Your task to perform on an android device: Open Yahoo.com Image 0: 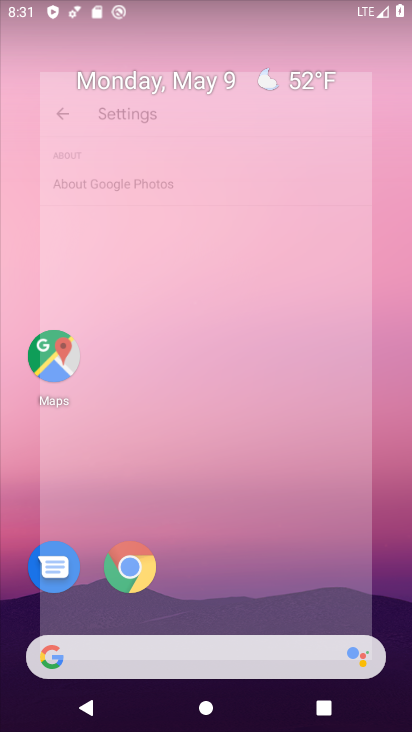
Step 0: drag from (295, 570) to (234, 49)
Your task to perform on an android device: Open Yahoo.com Image 1: 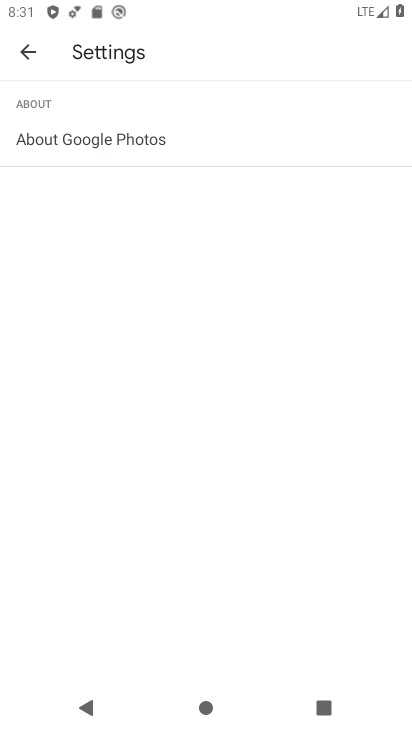
Step 1: press home button
Your task to perform on an android device: Open Yahoo.com Image 2: 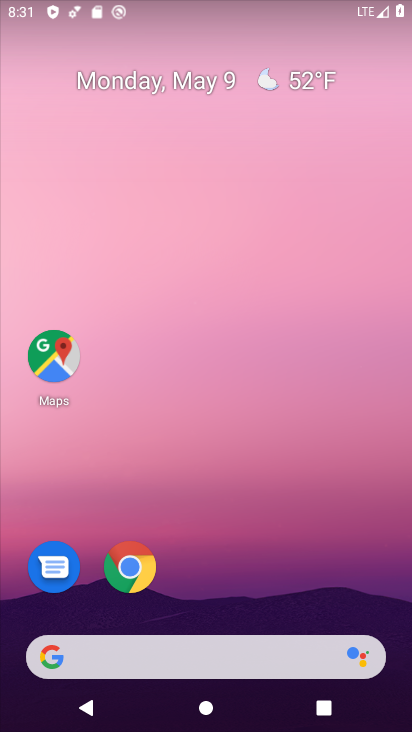
Step 2: drag from (317, 578) to (267, 489)
Your task to perform on an android device: Open Yahoo.com Image 3: 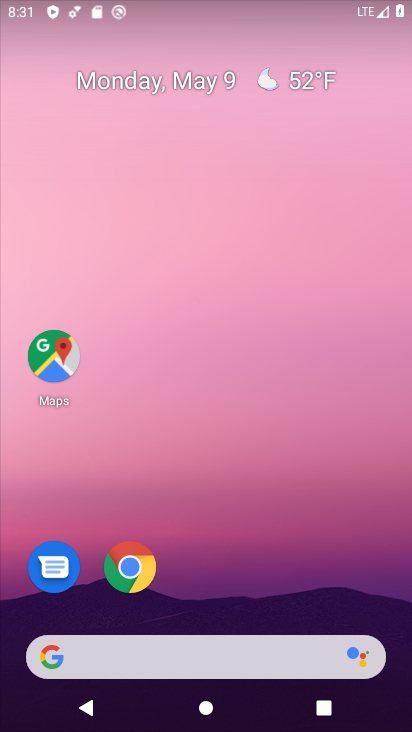
Step 3: click (133, 562)
Your task to perform on an android device: Open Yahoo.com Image 4: 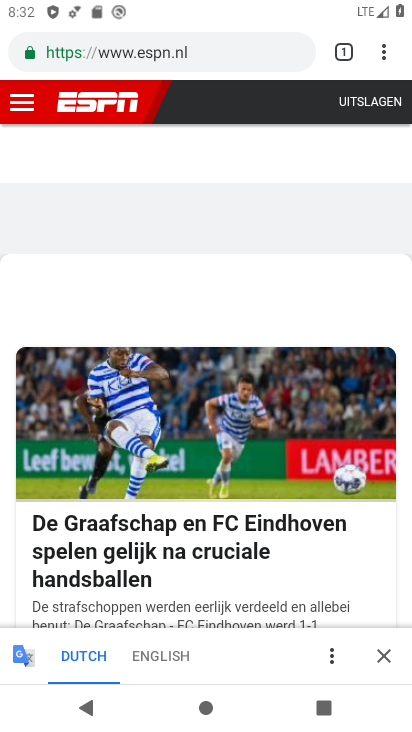
Step 4: click (329, 46)
Your task to perform on an android device: Open Yahoo.com Image 5: 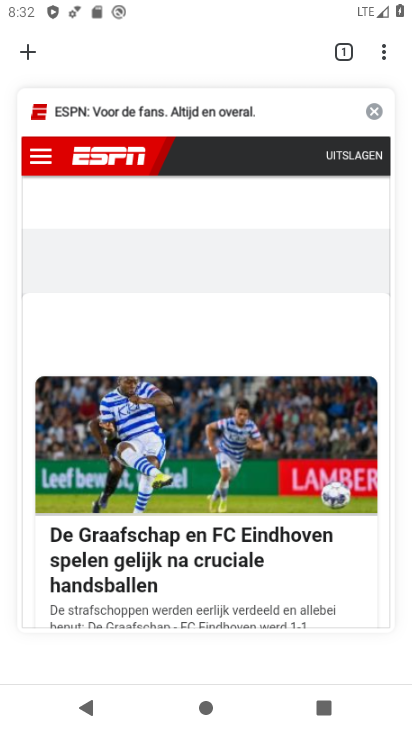
Step 5: click (371, 110)
Your task to perform on an android device: Open Yahoo.com Image 6: 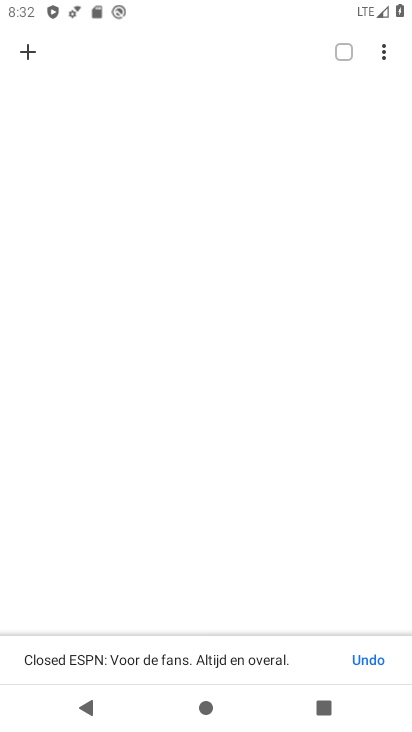
Step 6: click (37, 56)
Your task to perform on an android device: Open Yahoo.com Image 7: 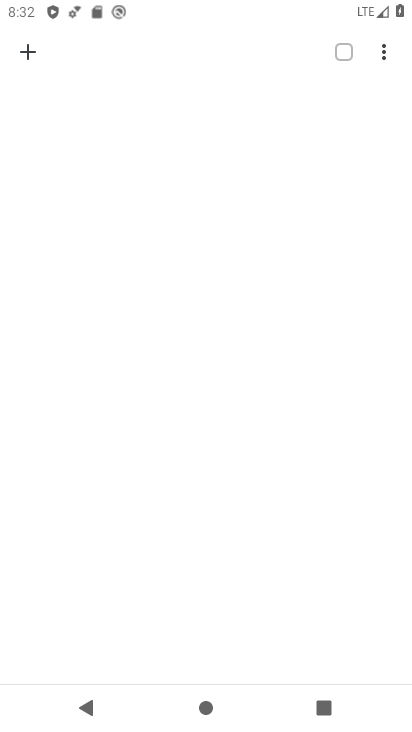
Step 7: click (34, 59)
Your task to perform on an android device: Open Yahoo.com Image 8: 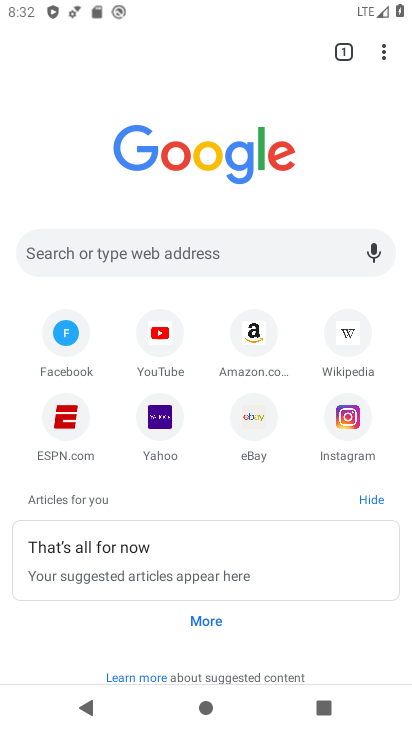
Step 8: click (147, 408)
Your task to perform on an android device: Open Yahoo.com Image 9: 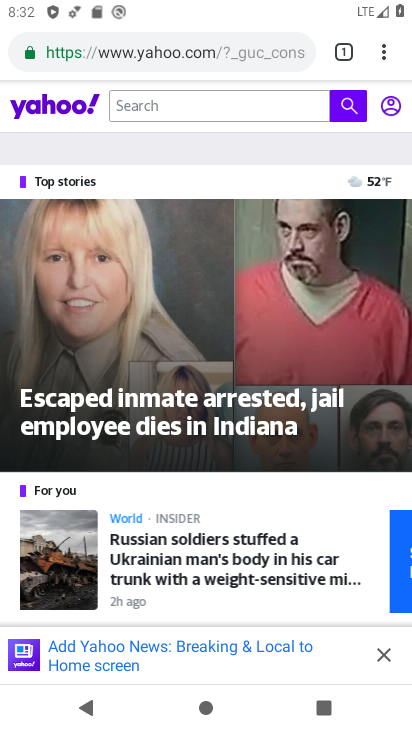
Step 9: task complete